Your task to perform on an android device: open chrome privacy settings Image 0: 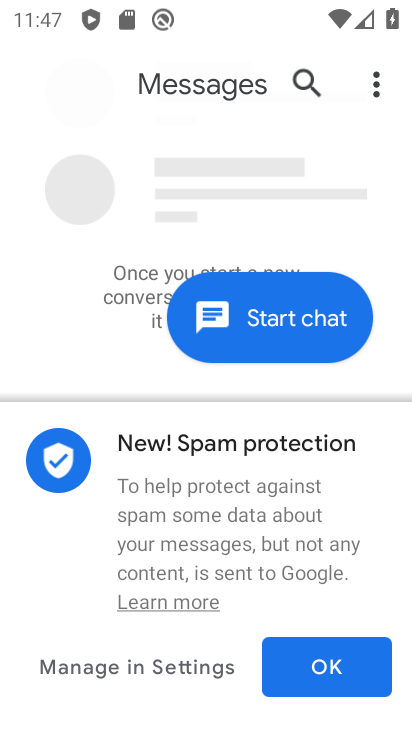
Step 0: press home button
Your task to perform on an android device: open chrome privacy settings Image 1: 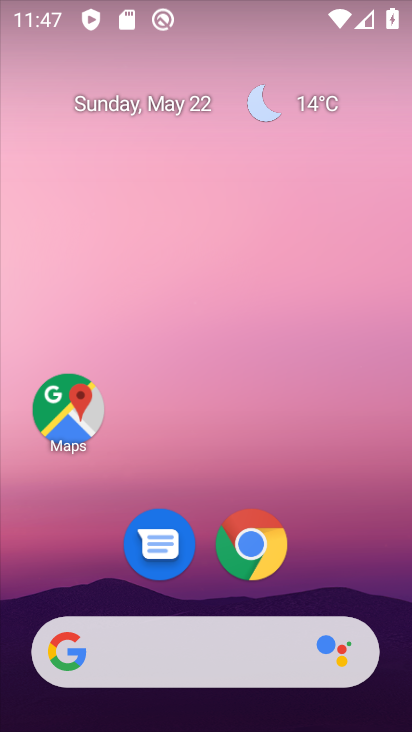
Step 1: click (248, 537)
Your task to perform on an android device: open chrome privacy settings Image 2: 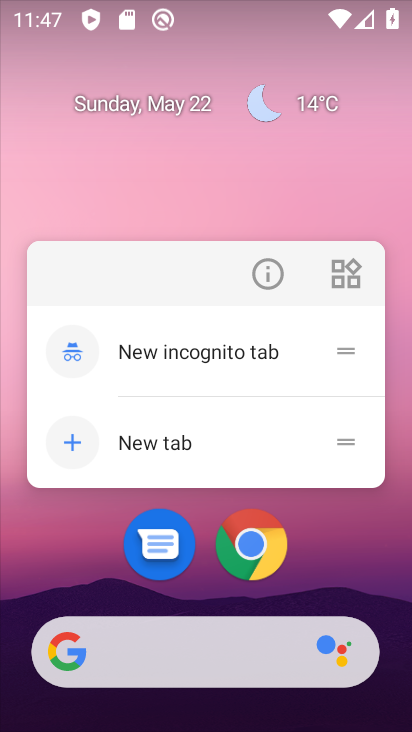
Step 2: click (245, 544)
Your task to perform on an android device: open chrome privacy settings Image 3: 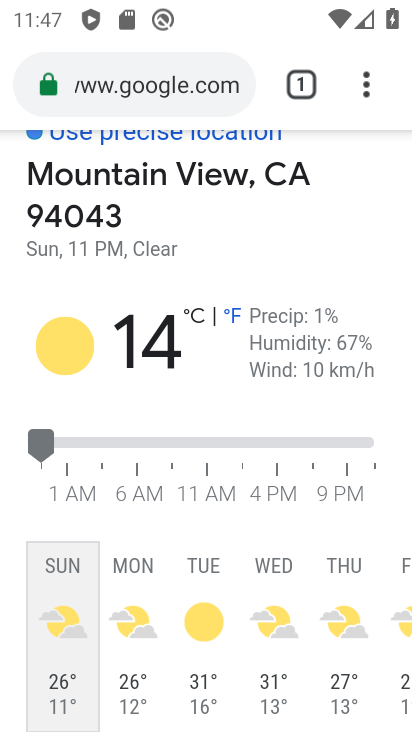
Step 3: drag from (366, 84) to (160, 601)
Your task to perform on an android device: open chrome privacy settings Image 4: 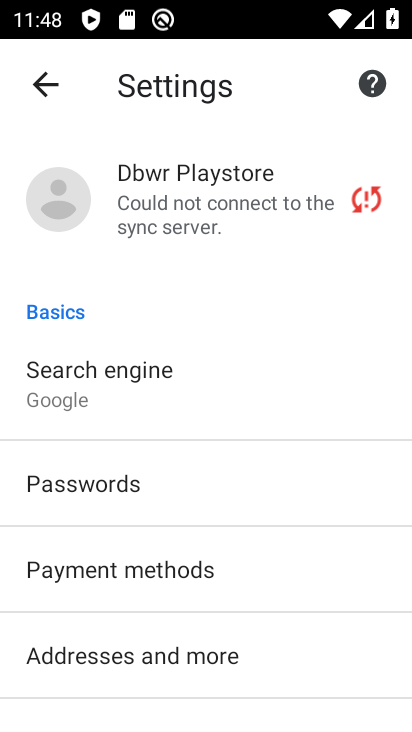
Step 4: drag from (155, 585) to (193, 181)
Your task to perform on an android device: open chrome privacy settings Image 5: 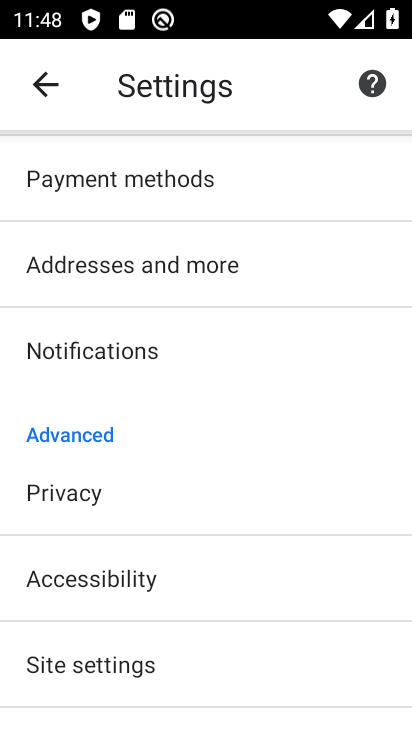
Step 5: click (74, 482)
Your task to perform on an android device: open chrome privacy settings Image 6: 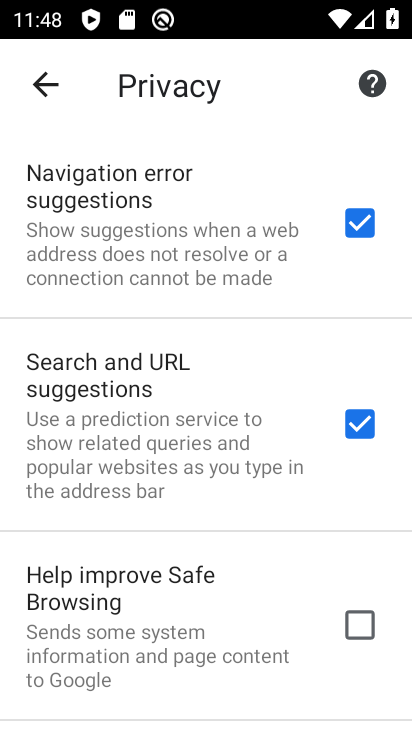
Step 6: task complete